Your task to perform on an android device: Open a new tab in the chrome app Image 0: 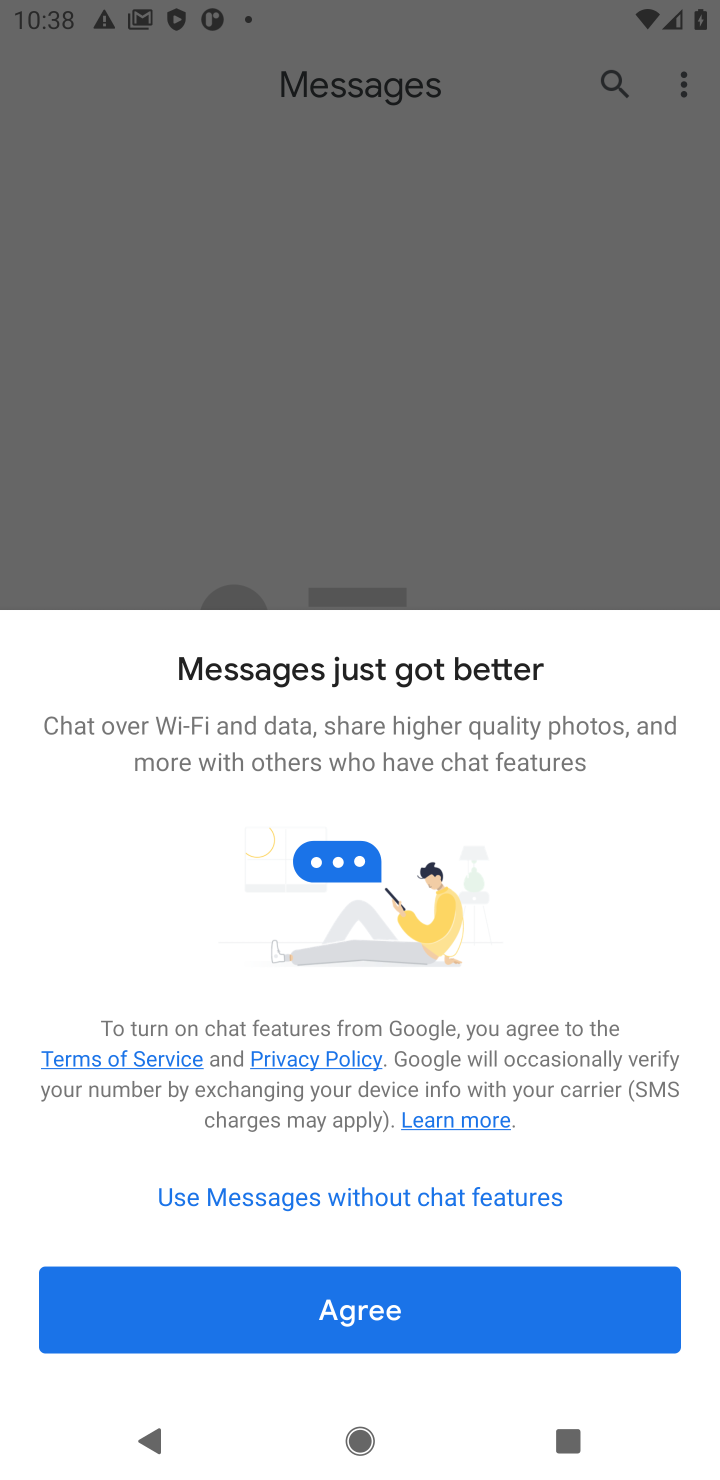
Step 0: click (565, 1320)
Your task to perform on an android device: Open a new tab in the chrome app Image 1: 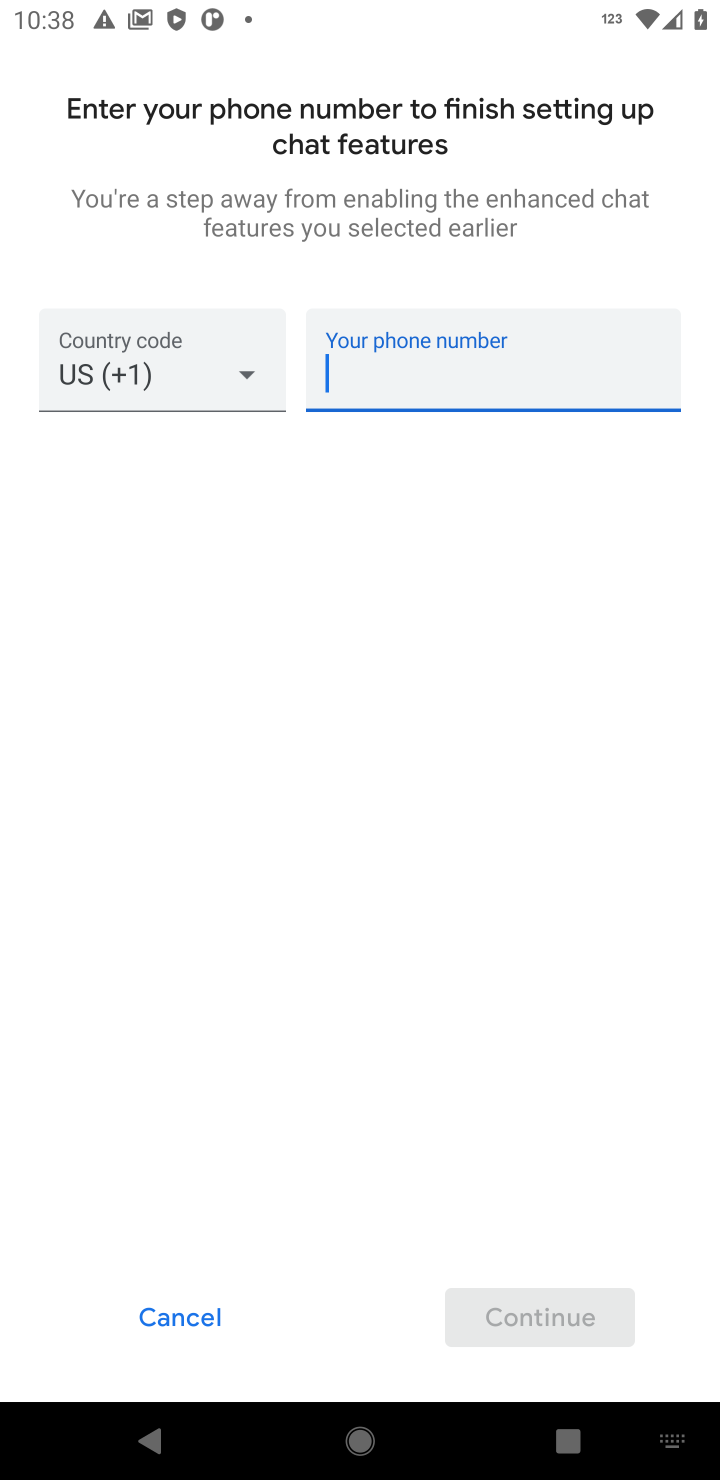
Step 1: click (168, 1314)
Your task to perform on an android device: Open a new tab in the chrome app Image 2: 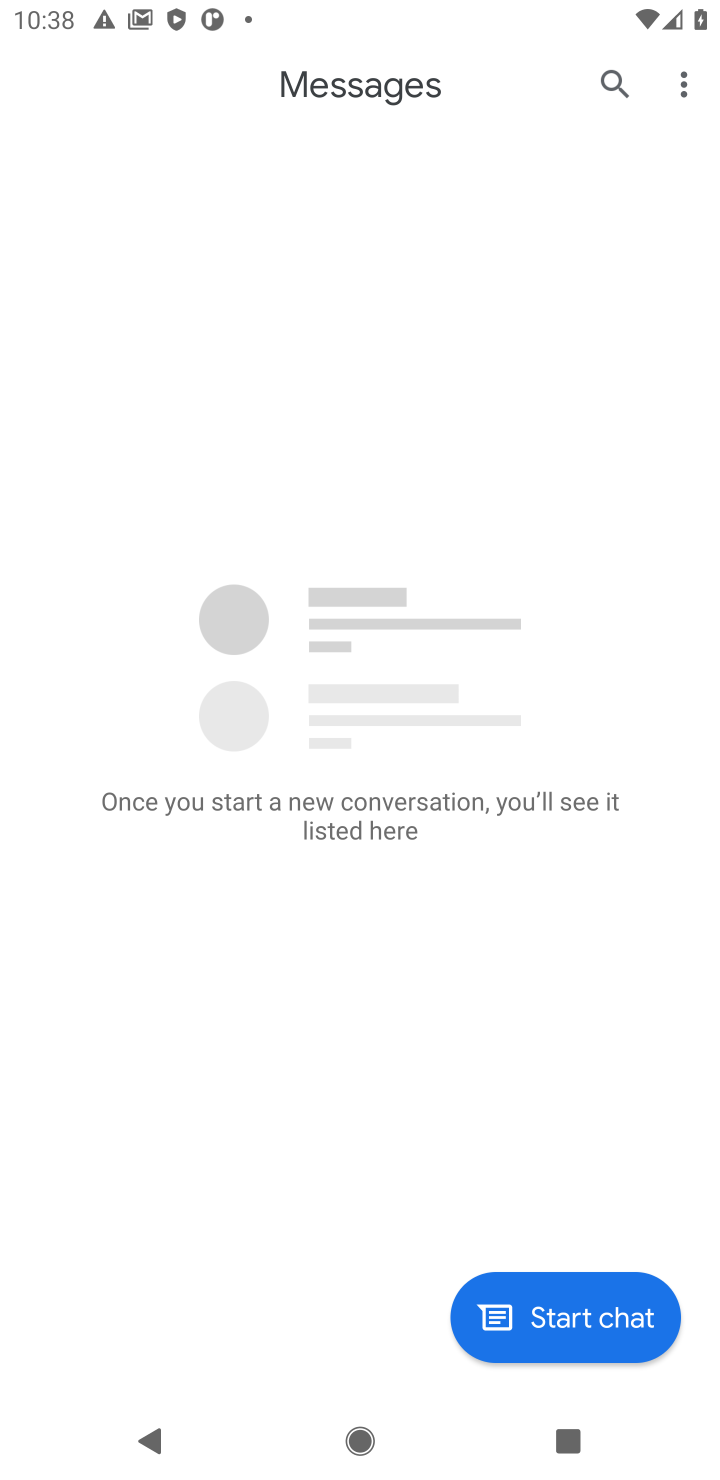
Step 2: press home button
Your task to perform on an android device: Open a new tab in the chrome app Image 3: 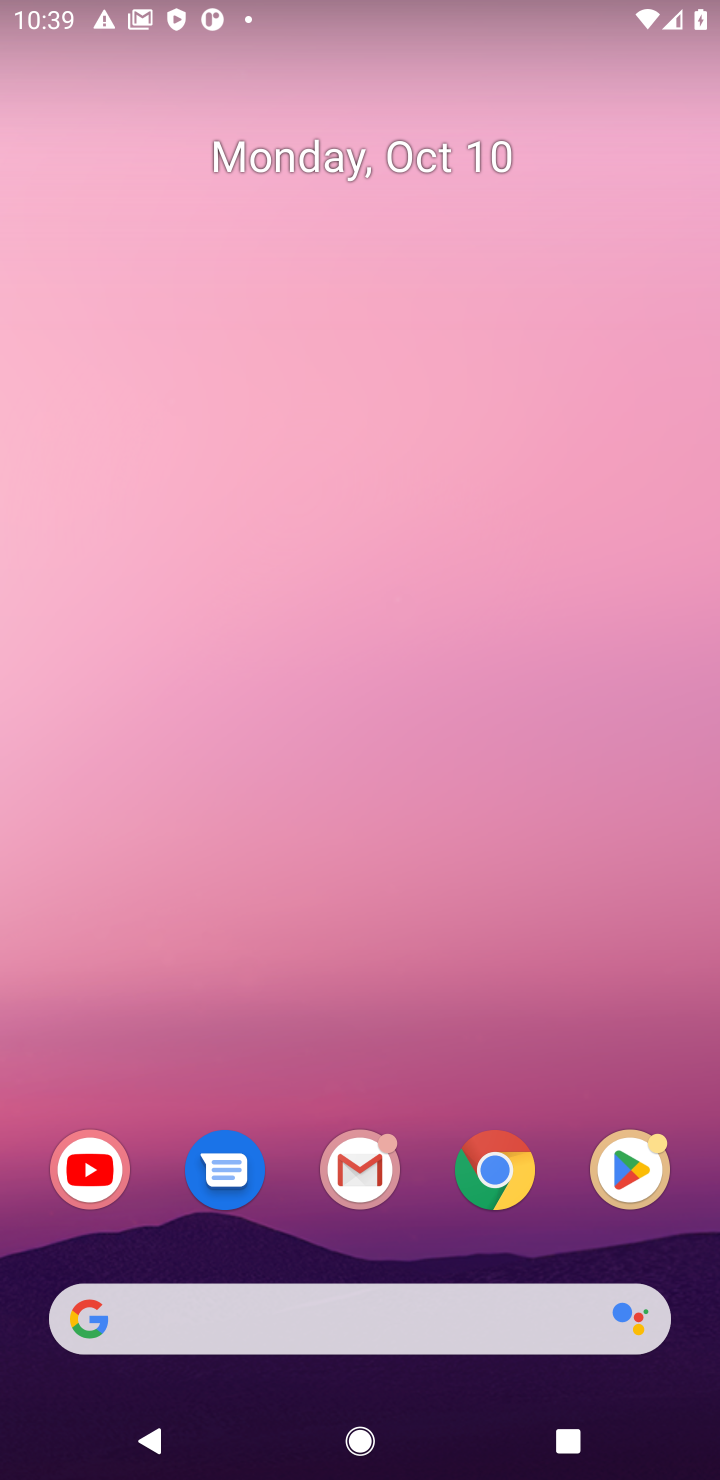
Step 3: click (486, 1156)
Your task to perform on an android device: Open a new tab in the chrome app Image 4: 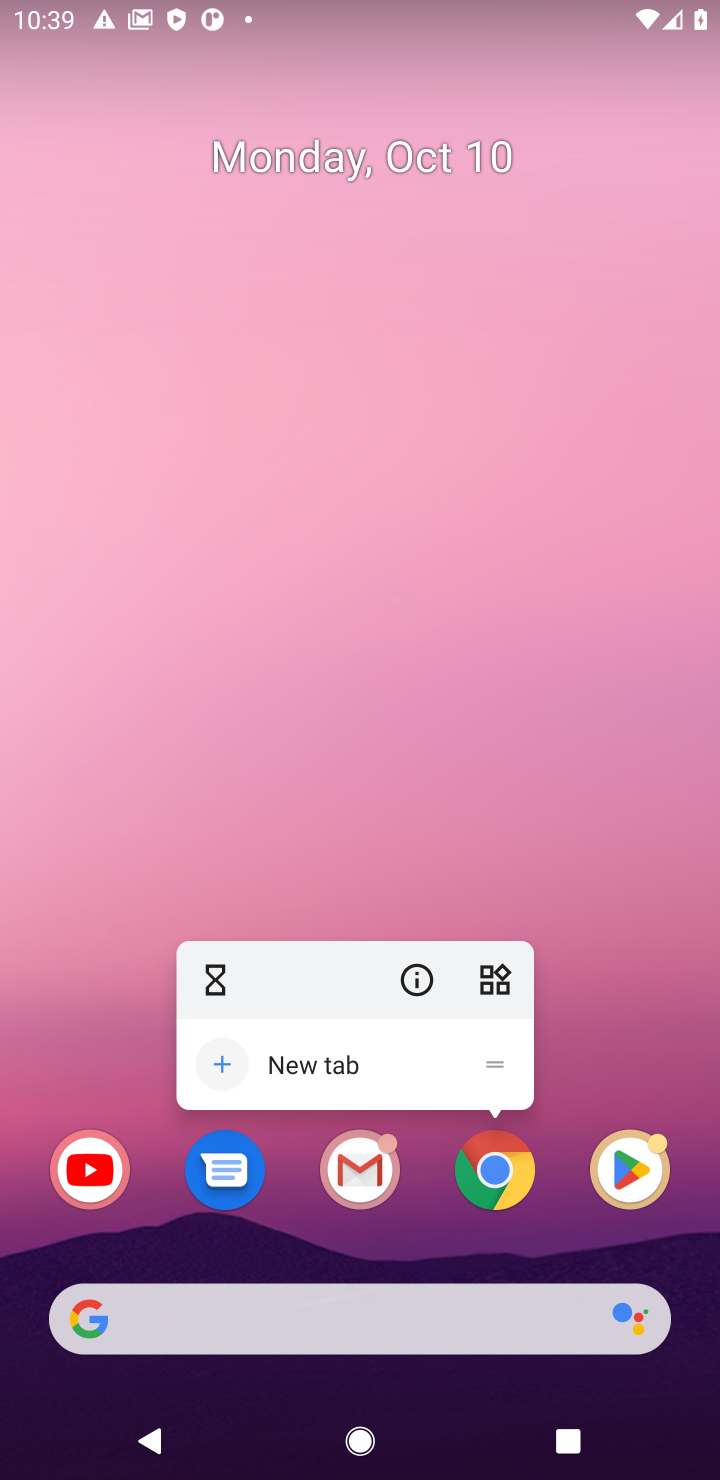
Step 4: click (487, 1189)
Your task to perform on an android device: Open a new tab in the chrome app Image 5: 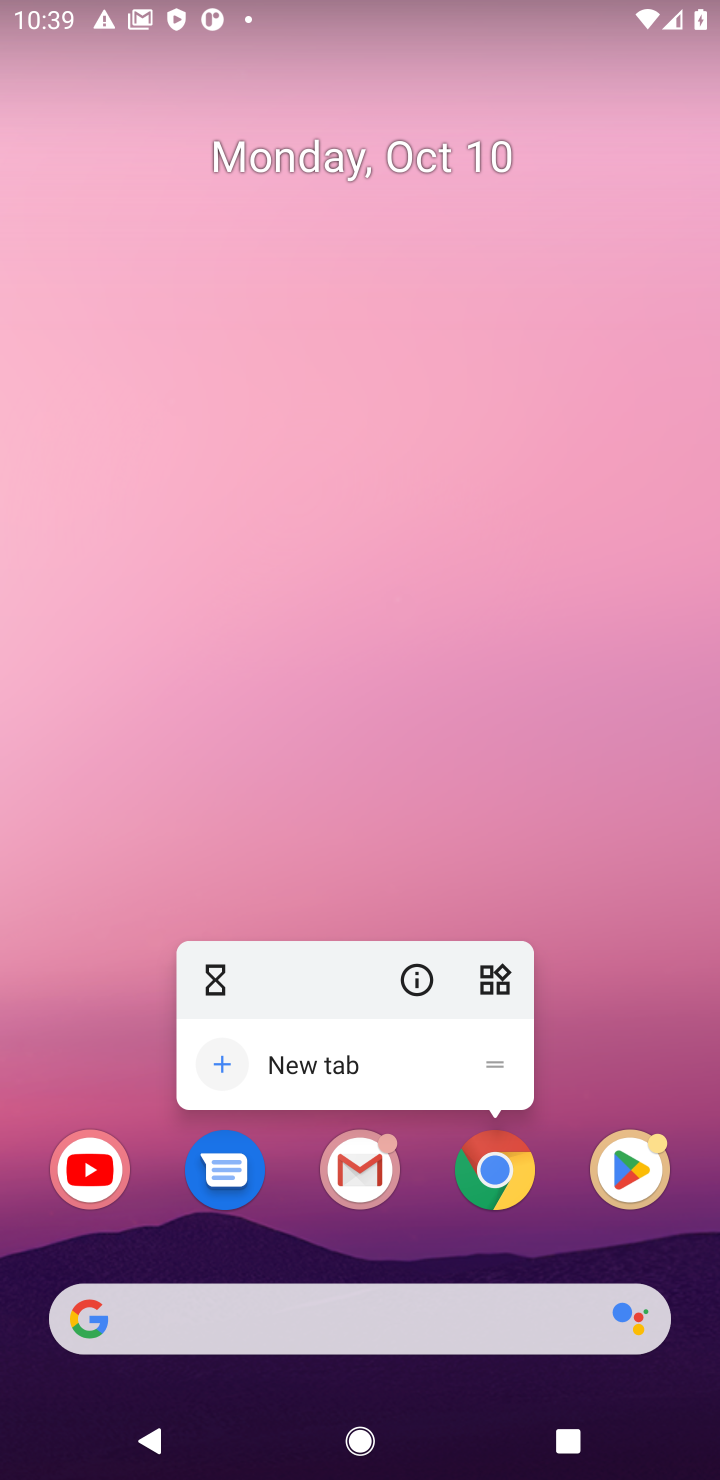
Step 5: click (421, 639)
Your task to perform on an android device: Open a new tab in the chrome app Image 6: 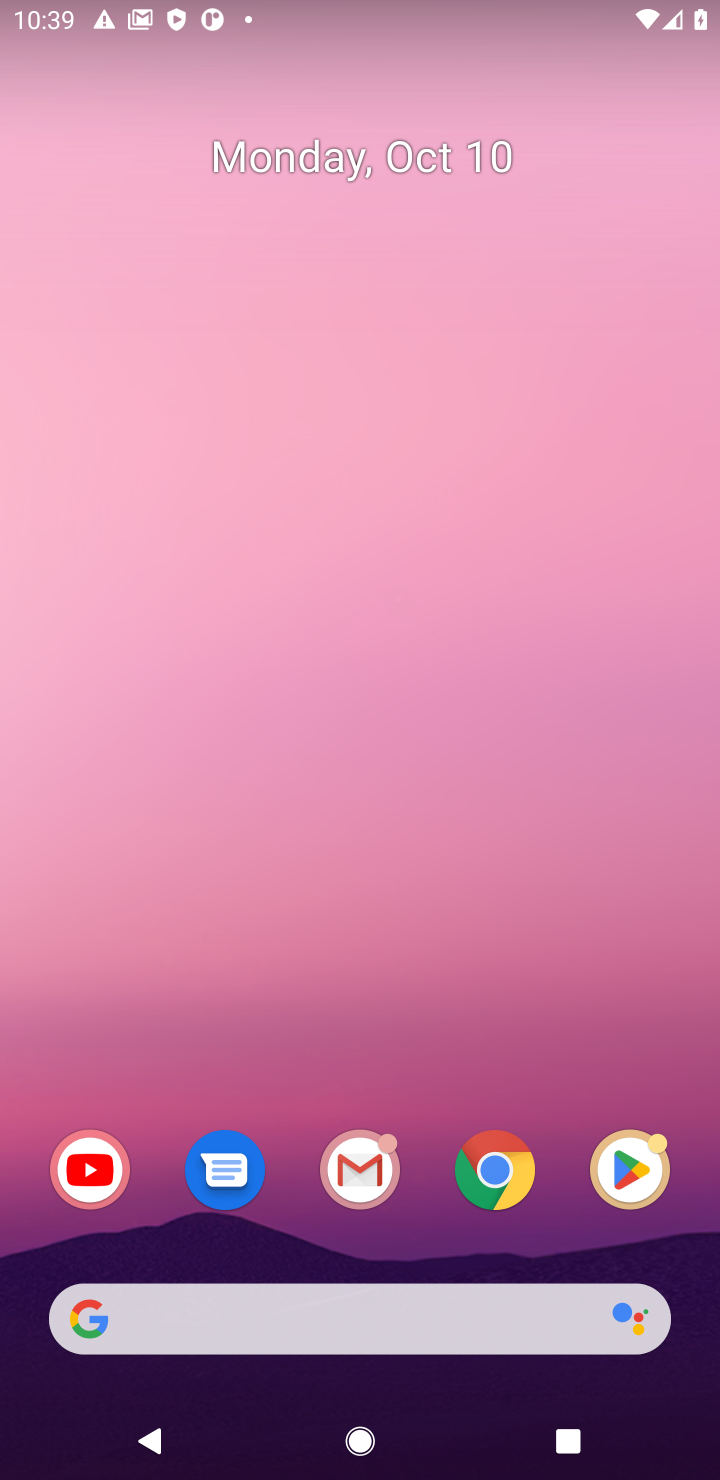
Step 6: drag from (383, 1307) to (436, 242)
Your task to perform on an android device: Open a new tab in the chrome app Image 7: 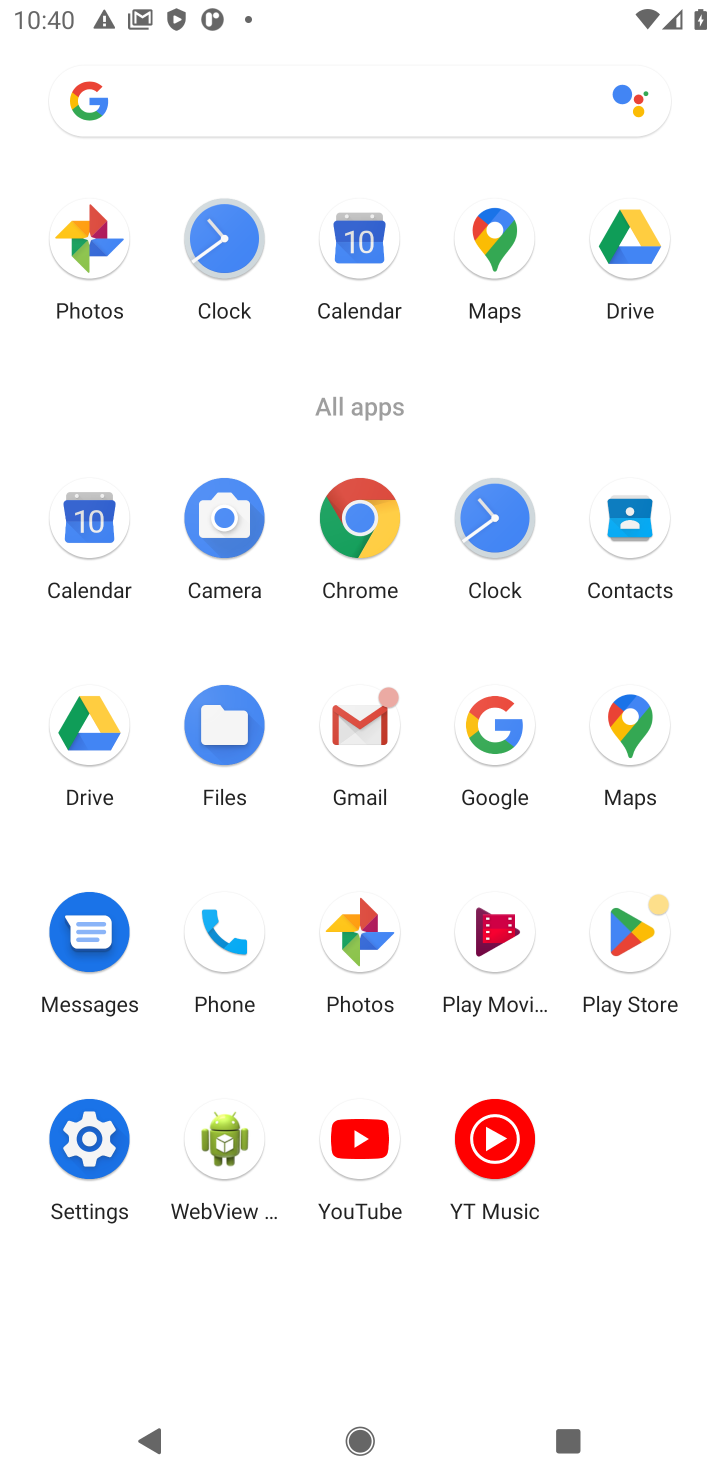
Step 7: click (380, 548)
Your task to perform on an android device: Open a new tab in the chrome app Image 8: 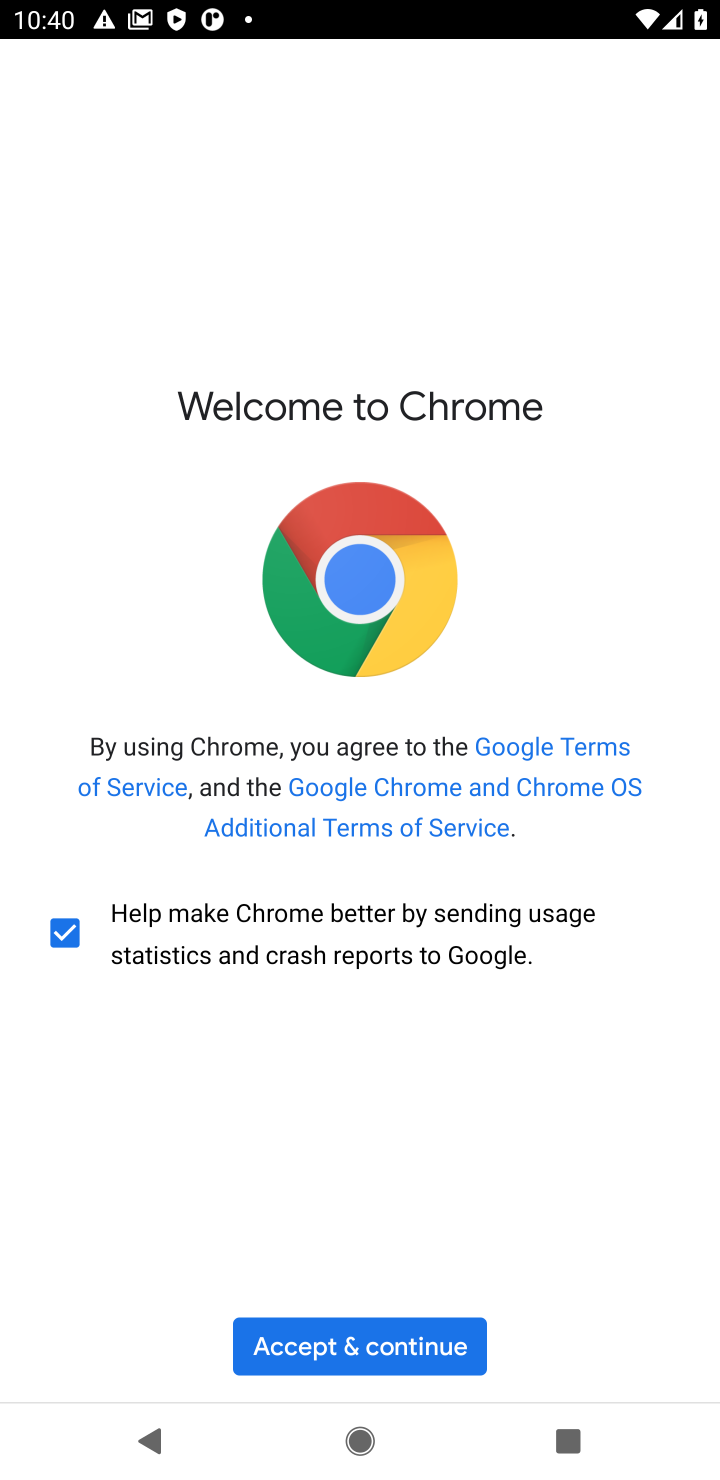
Step 8: click (436, 1332)
Your task to perform on an android device: Open a new tab in the chrome app Image 9: 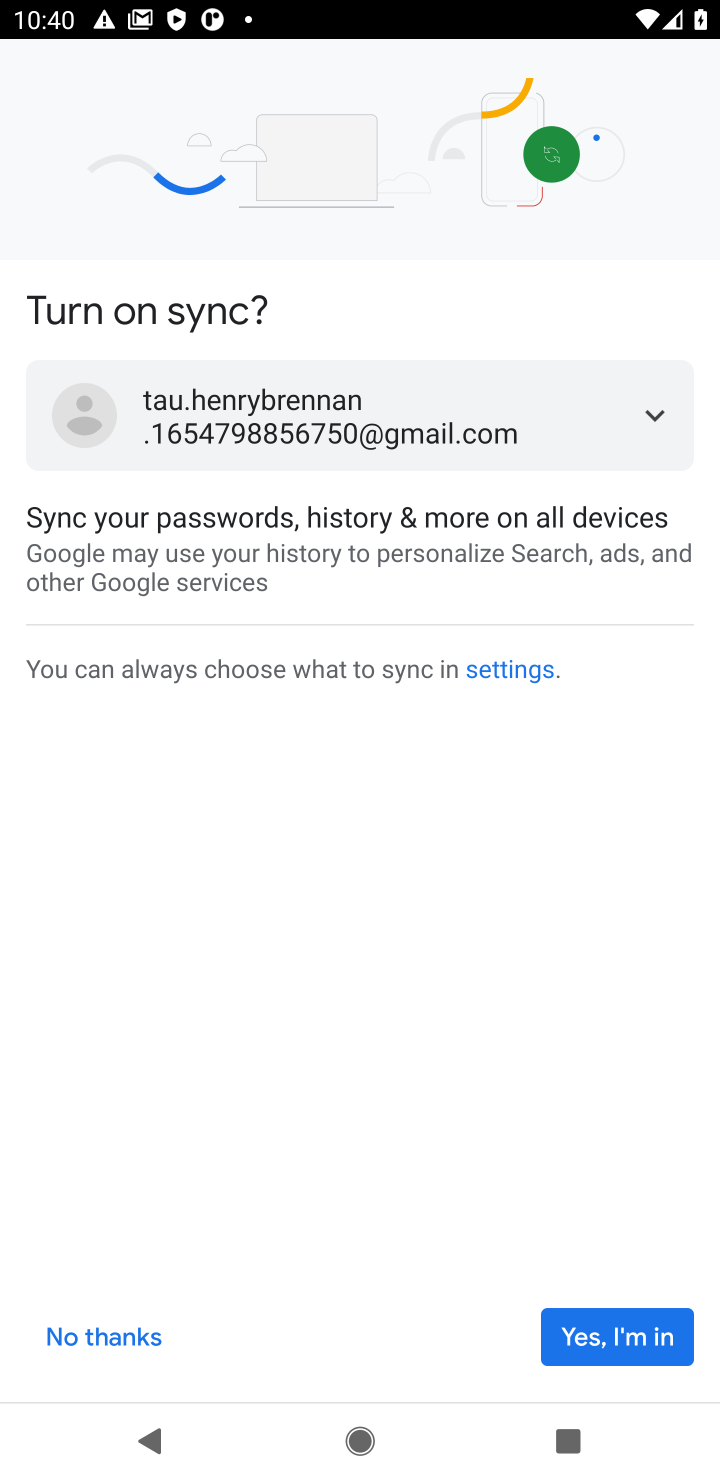
Step 9: click (436, 1332)
Your task to perform on an android device: Open a new tab in the chrome app Image 10: 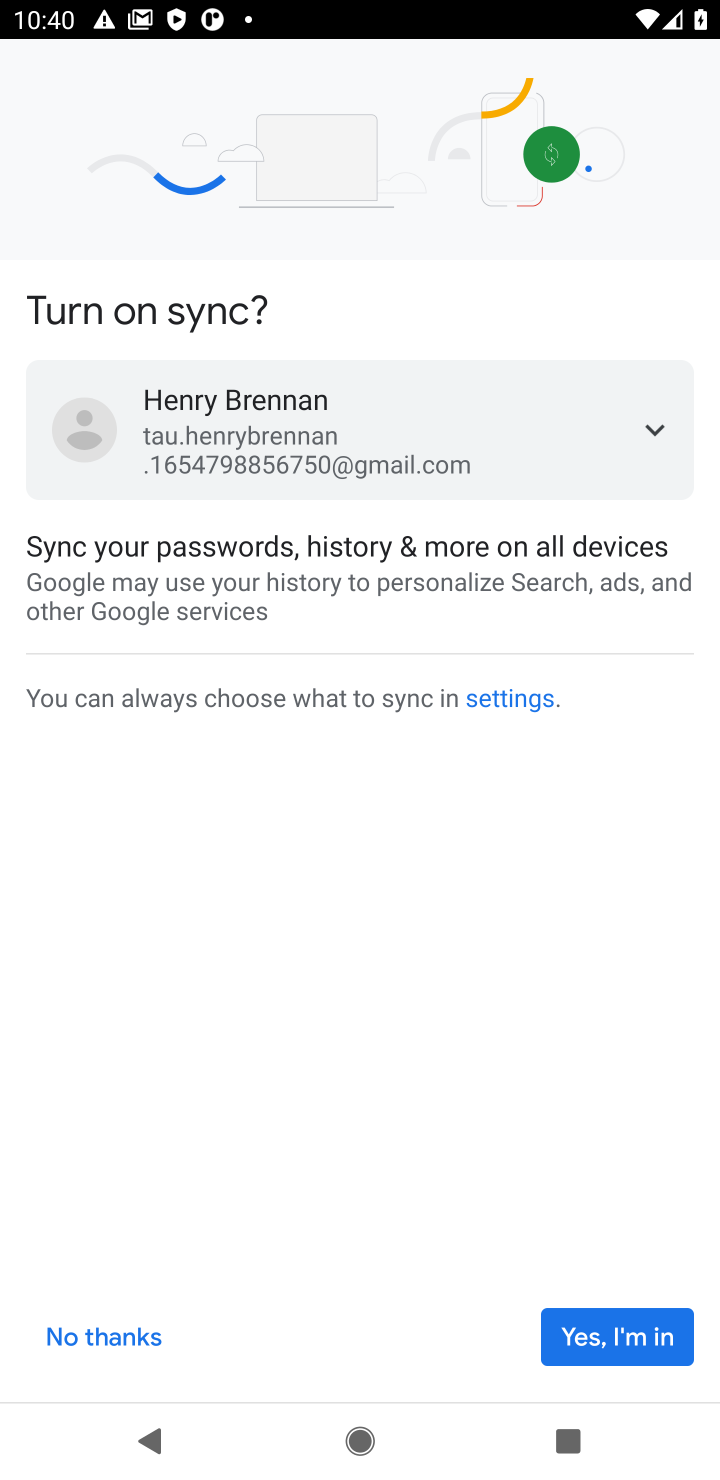
Step 10: click (645, 1327)
Your task to perform on an android device: Open a new tab in the chrome app Image 11: 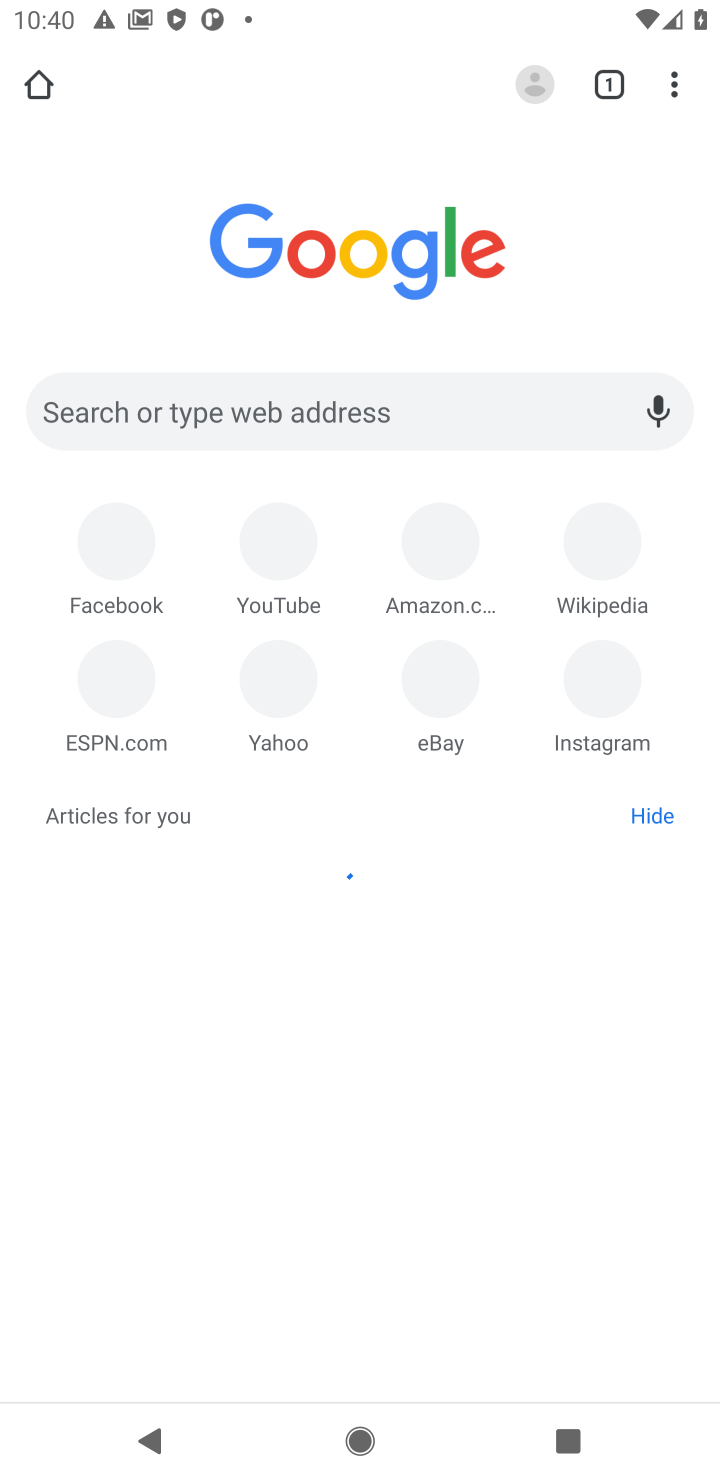
Step 11: click (631, 274)
Your task to perform on an android device: Open a new tab in the chrome app Image 12: 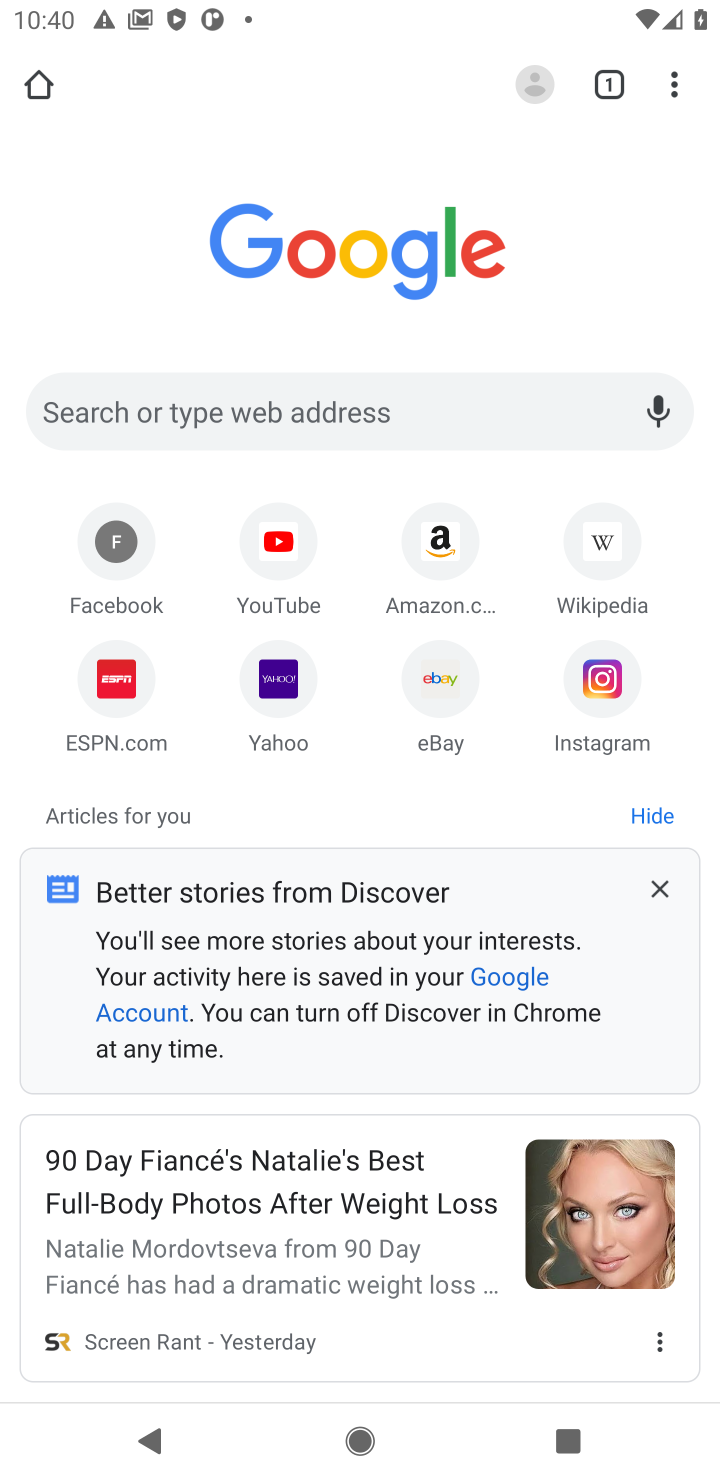
Step 12: drag from (592, 95) to (613, 948)
Your task to perform on an android device: Open a new tab in the chrome app Image 13: 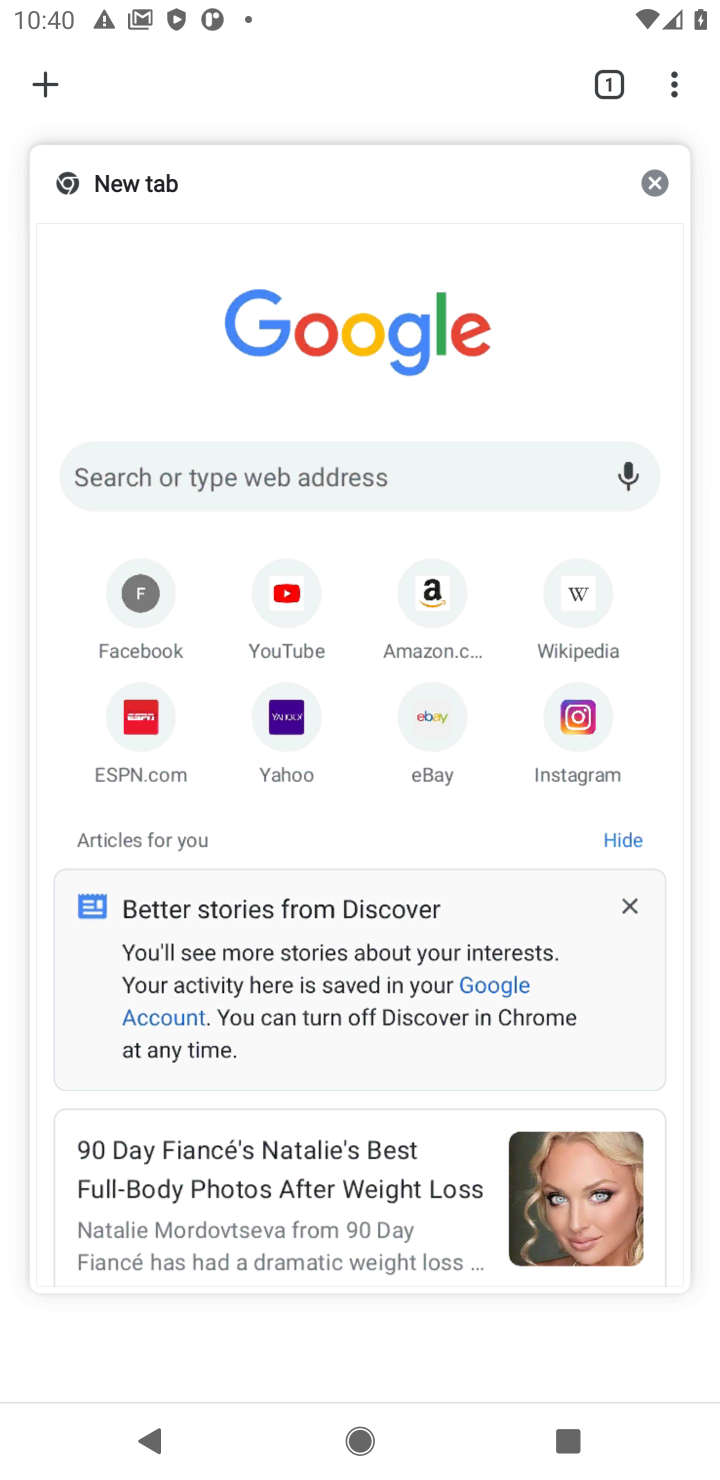
Step 13: click (52, 99)
Your task to perform on an android device: Open a new tab in the chrome app Image 14: 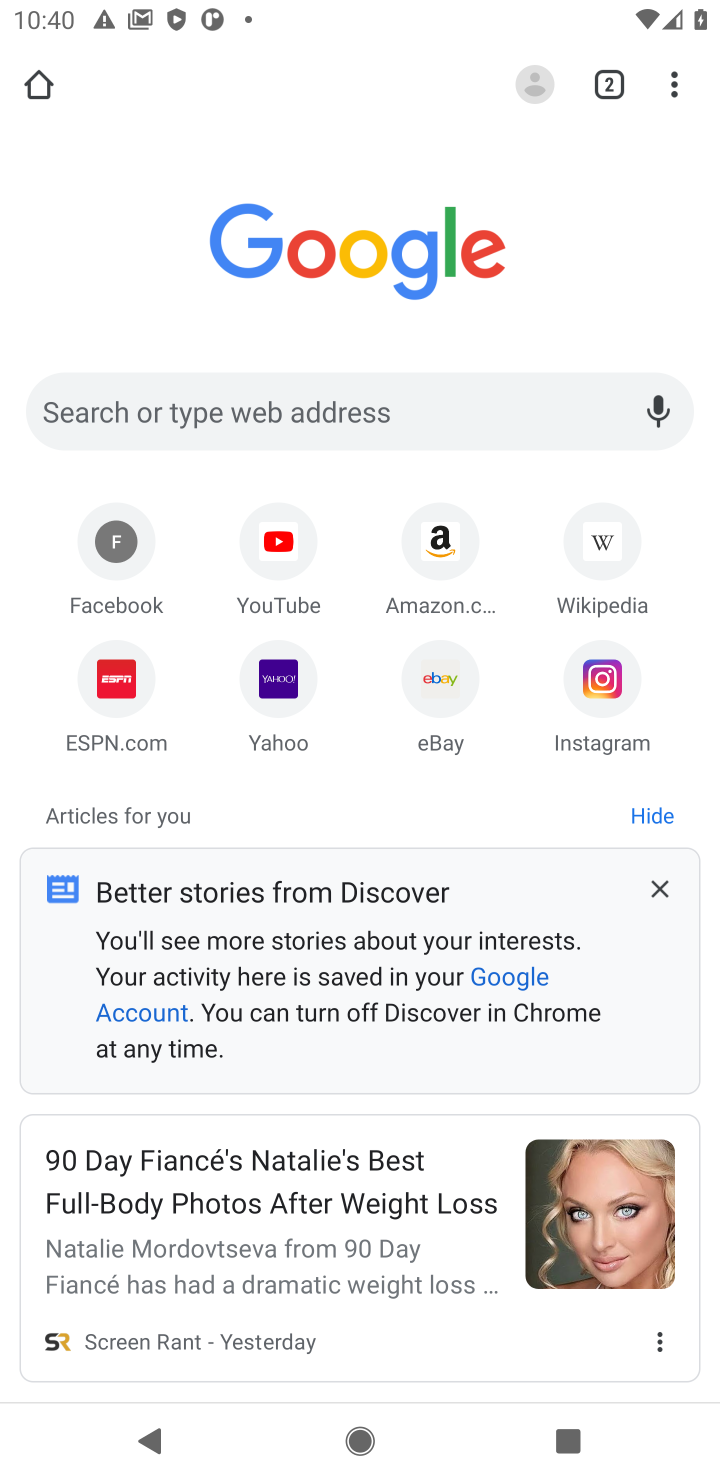
Step 14: task complete